Your task to perform on an android device: Open Chrome and go to the settings page Image 0: 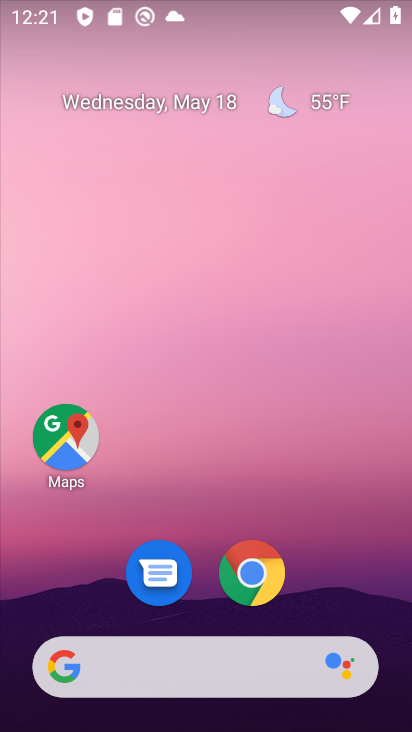
Step 0: drag from (361, 586) to (352, 165)
Your task to perform on an android device: Open Chrome and go to the settings page Image 1: 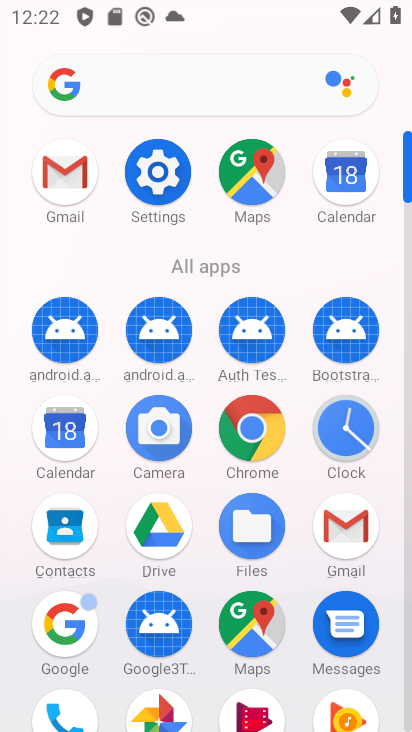
Step 1: click (269, 423)
Your task to perform on an android device: Open Chrome and go to the settings page Image 2: 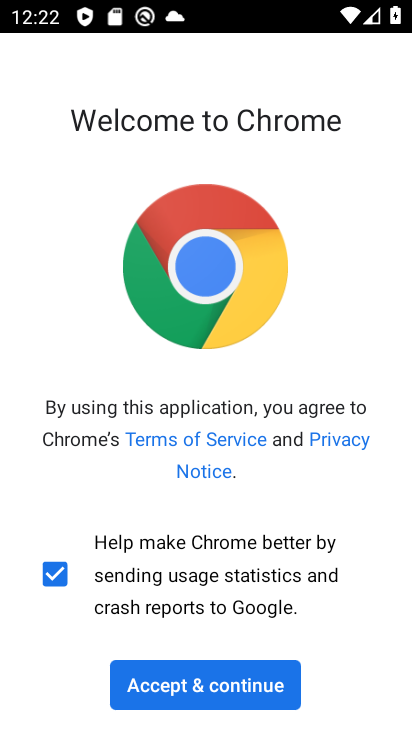
Step 2: click (249, 697)
Your task to perform on an android device: Open Chrome and go to the settings page Image 3: 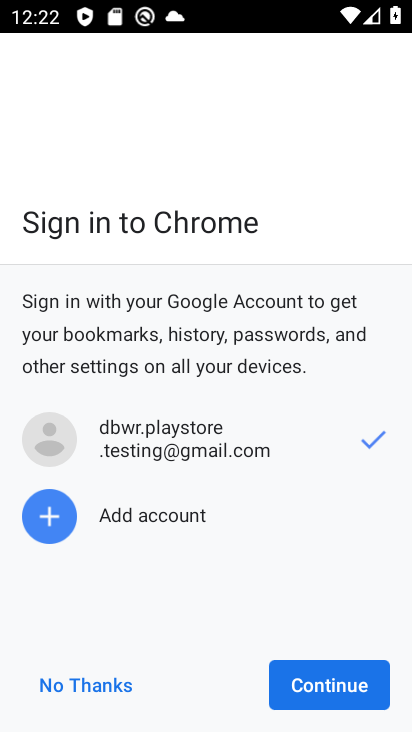
Step 3: click (345, 683)
Your task to perform on an android device: Open Chrome and go to the settings page Image 4: 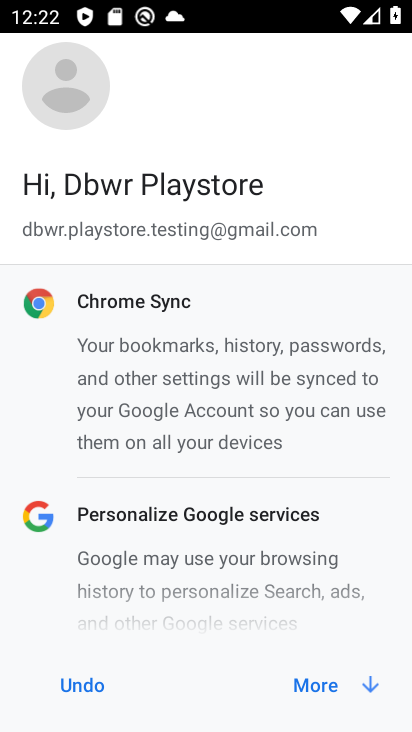
Step 4: click (318, 685)
Your task to perform on an android device: Open Chrome and go to the settings page Image 5: 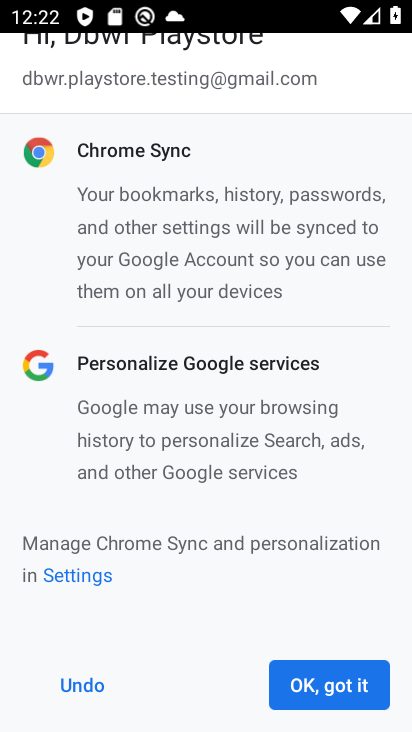
Step 5: click (330, 686)
Your task to perform on an android device: Open Chrome and go to the settings page Image 6: 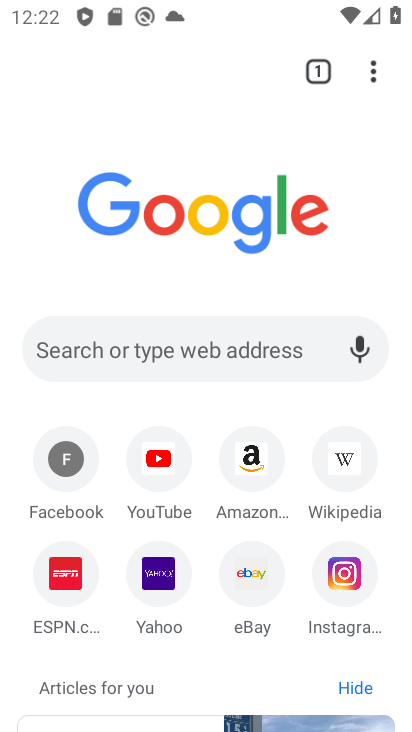
Step 6: click (371, 83)
Your task to perform on an android device: Open Chrome and go to the settings page Image 7: 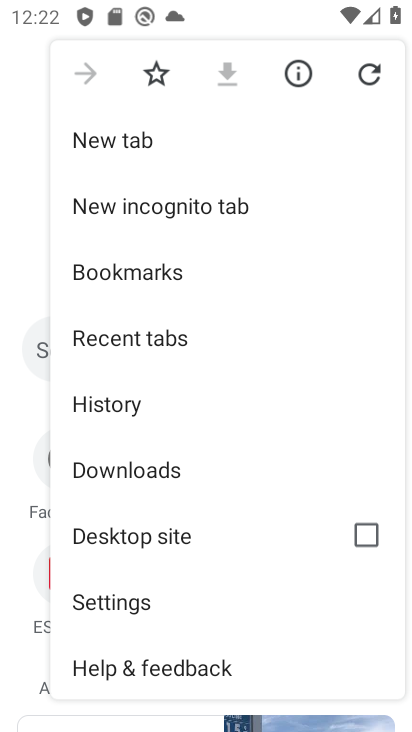
Step 7: click (140, 608)
Your task to perform on an android device: Open Chrome and go to the settings page Image 8: 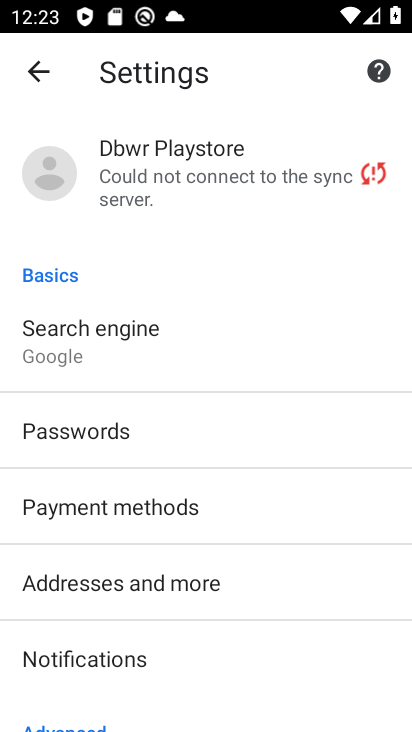
Step 8: task complete